Your task to perform on an android device: open chrome and create a bookmark for the current page Image 0: 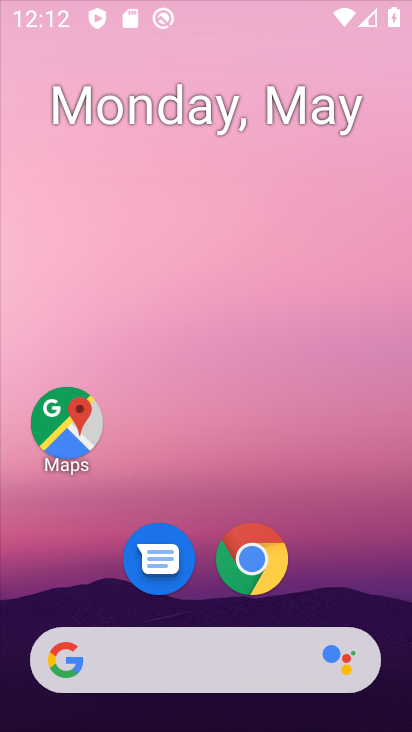
Step 0: drag from (350, 573) to (215, 1)
Your task to perform on an android device: open chrome and create a bookmark for the current page Image 1: 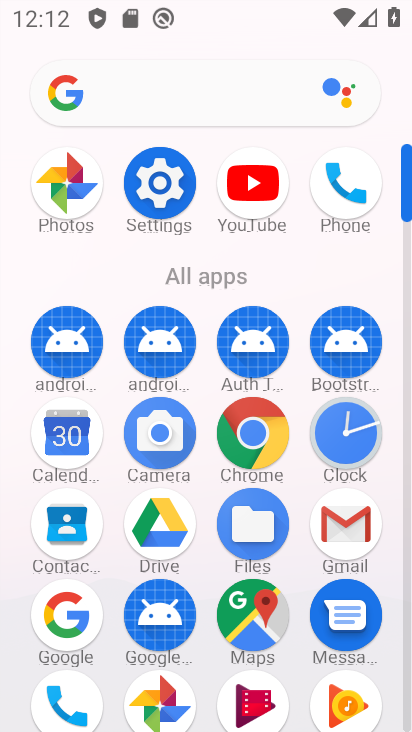
Step 1: drag from (6, 529) to (19, 250)
Your task to perform on an android device: open chrome and create a bookmark for the current page Image 2: 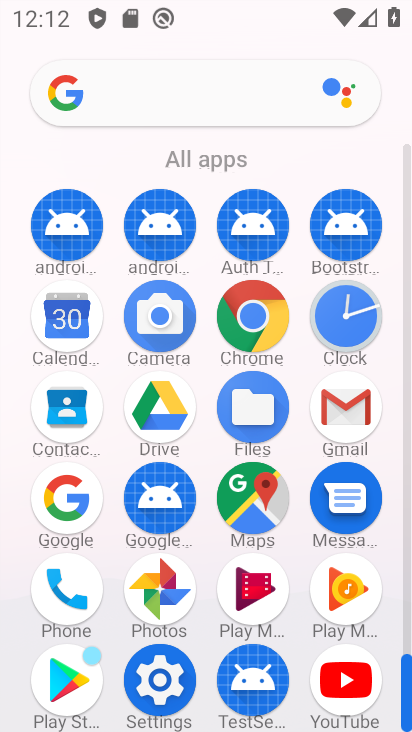
Step 2: click (250, 307)
Your task to perform on an android device: open chrome and create a bookmark for the current page Image 3: 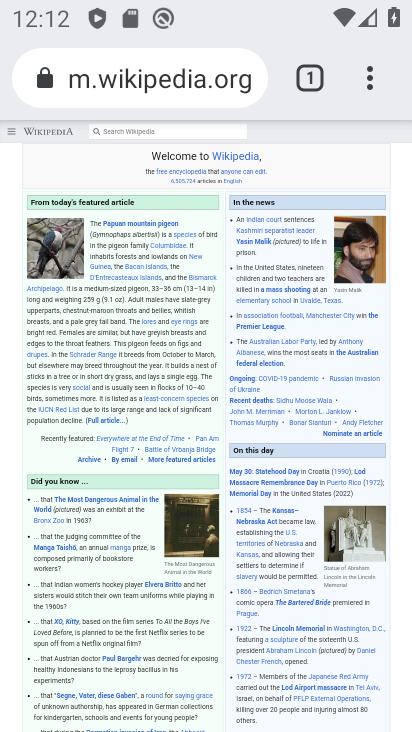
Step 3: task complete